Your task to perform on an android device: Search for seafood restaurants on Google Maps Image 0: 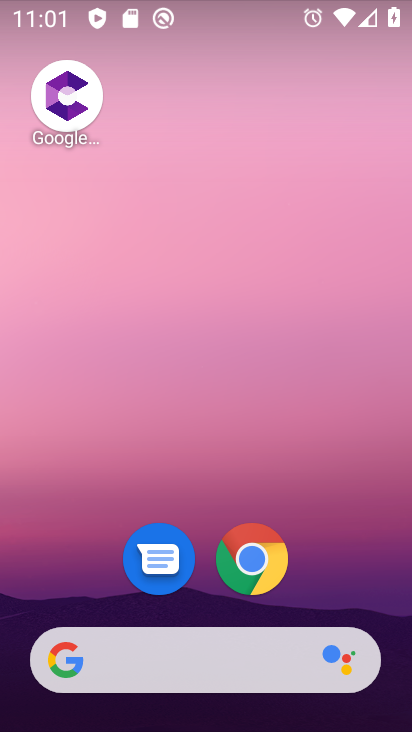
Step 0: drag from (253, 664) to (237, 130)
Your task to perform on an android device: Search for seafood restaurants on Google Maps Image 1: 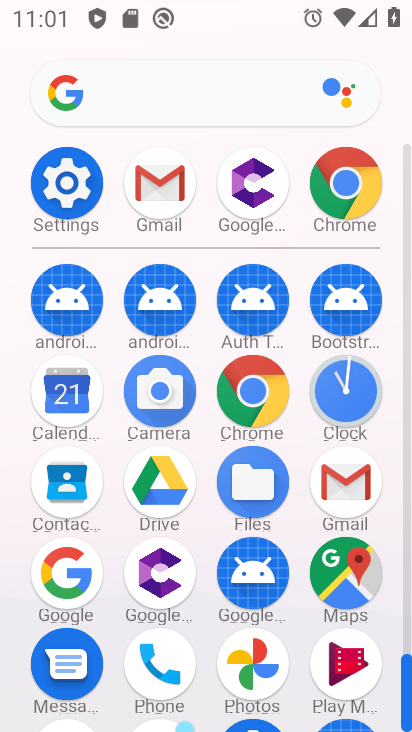
Step 1: click (334, 557)
Your task to perform on an android device: Search for seafood restaurants on Google Maps Image 2: 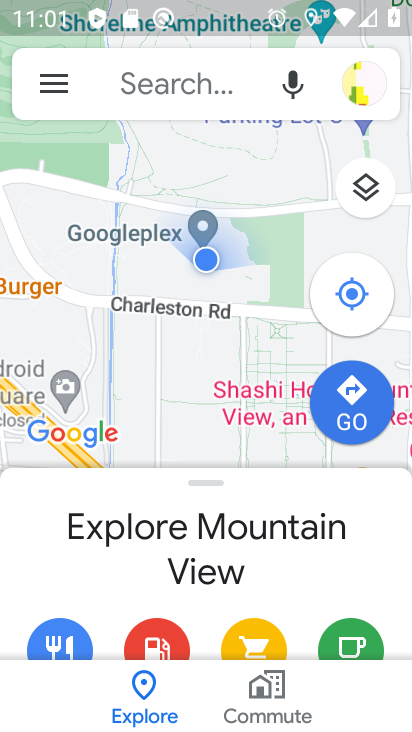
Step 2: click (207, 70)
Your task to perform on an android device: Search for seafood restaurants on Google Maps Image 3: 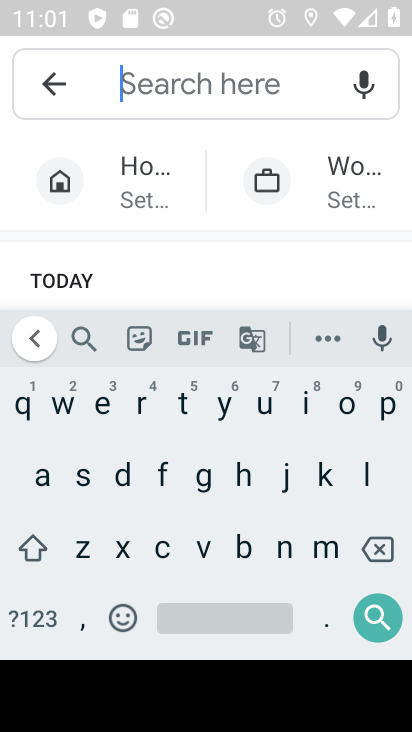
Step 3: click (82, 476)
Your task to perform on an android device: Search for seafood restaurants on Google Maps Image 4: 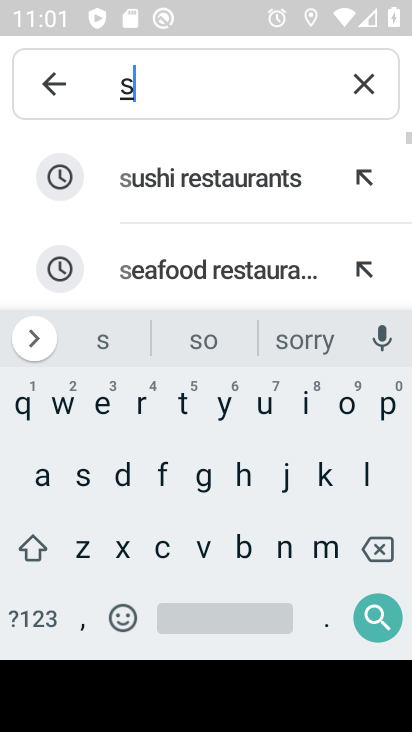
Step 4: click (188, 259)
Your task to perform on an android device: Search for seafood restaurants on Google Maps Image 5: 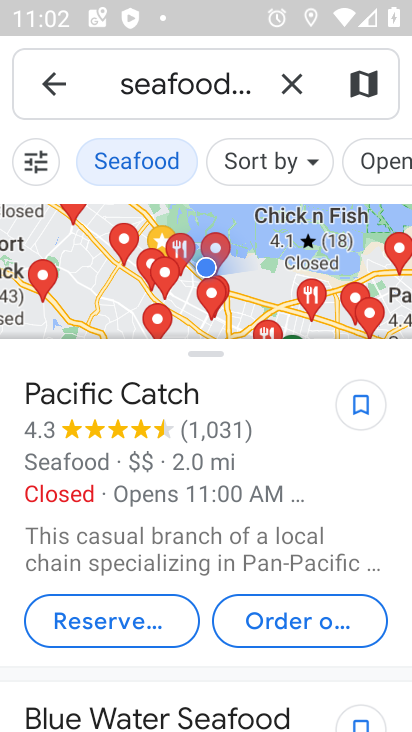
Step 5: click (103, 258)
Your task to perform on an android device: Search for seafood restaurants on Google Maps Image 6: 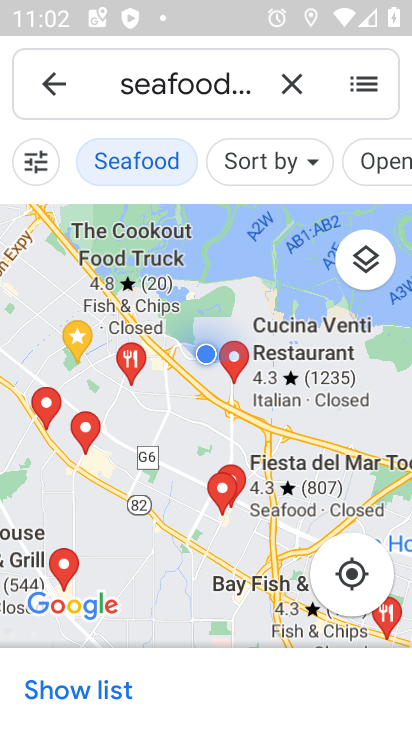
Step 6: task complete